Your task to perform on an android device: open app "Yahoo Mail" (install if not already installed) Image 0: 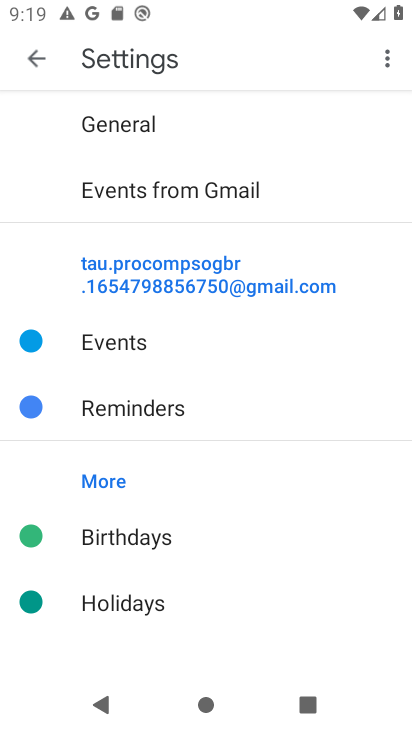
Step 0: press home button
Your task to perform on an android device: open app "Yahoo Mail" (install if not already installed) Image 1: 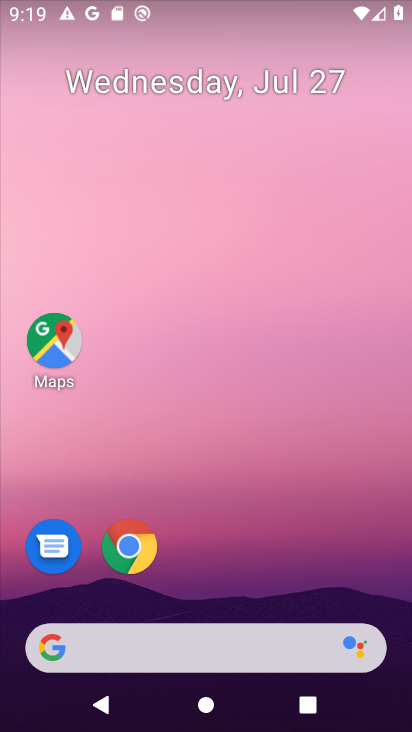
Step 1: drag from (194, 596) to (163, 208)
Your task to perform on an android device: open app "Yahoo Mail" (install if not already installed) Image 2: 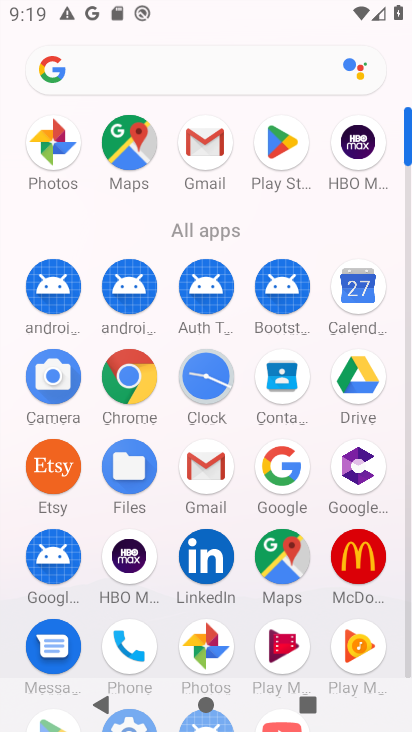
Step 2: click (282, 147)
Your task to perform on an android device: open app "Yahoo Mail" (install if not already installed) Image 3: 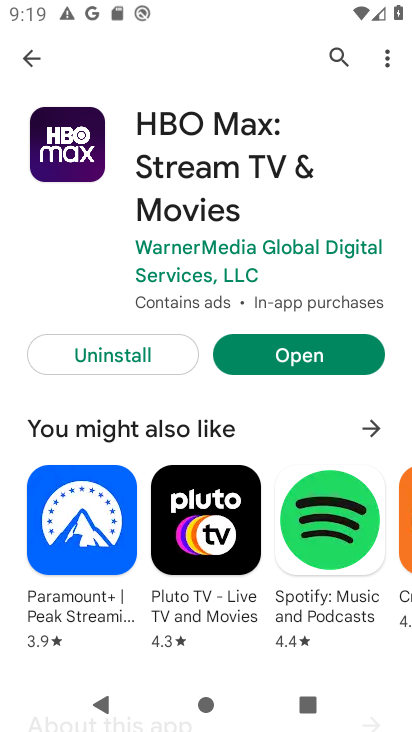
Step 3: click (337, 54)
Your task to perform on an android device: open app "Yahoo Mail" (install if not already installed) Image 4: 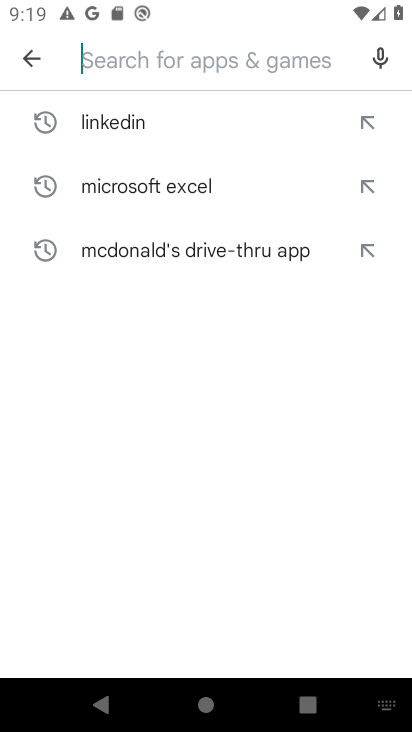
Step 4: type "Yahoo Mail"
Your task to perform on an android device: open app "Yahoo Mail" (install if not already installed) Image 5: 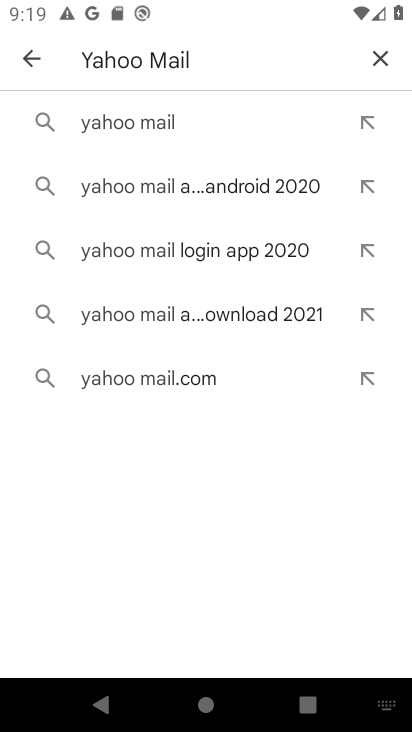
Step 5: click (172, 114)
Your task to perform on an android device: open app "Yahoo Mail" (install if not already installed) Image 6: 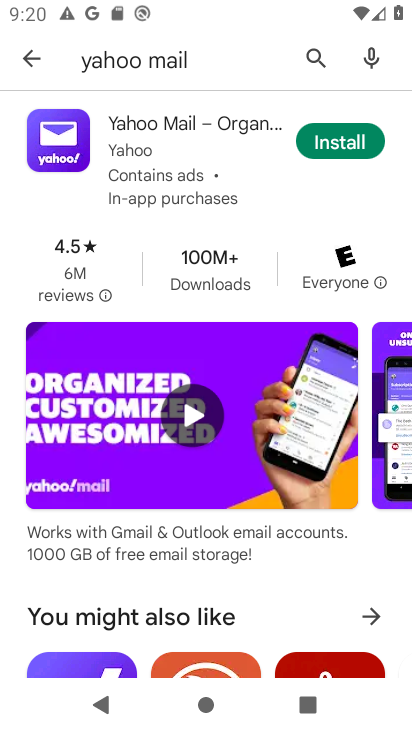
Step 6: drag from (65, 595) to (191, 128)
Your task to perform on an android device: open app "Yahoo Mail" (install if not already installed) Image 7: 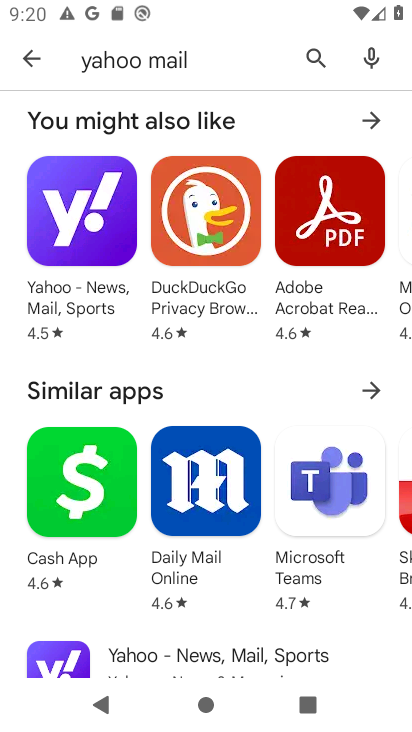
Step 7: drag from (145, 638) to (198, 588)
Your task to perform on an android device: open app "Yahoo Mail" (install if not already installed) Image 8: 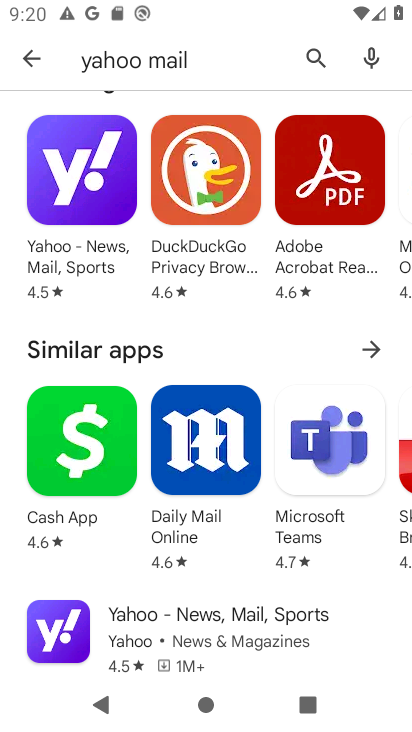
Step 8: drag from (306, 233) to (324, 687)
Your task to perform on an android device: open app "Yahoo Mail" (install if not already installed) Image 9: 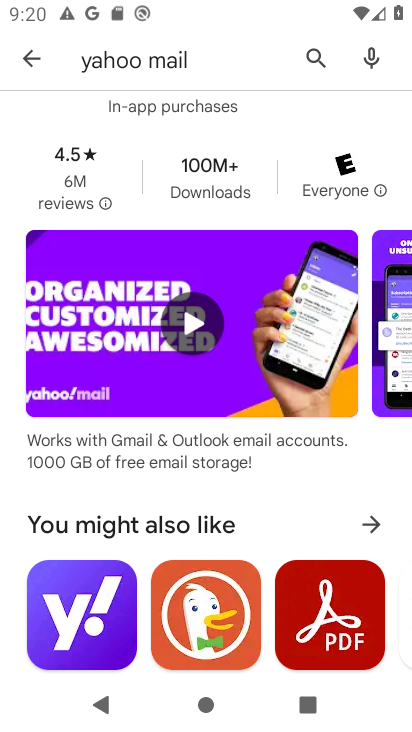
Step 9: drag from (181, 386) to (218, 626)
Your task to perform on an android device: open app "Yahoo Mail" (install if not already installed) Image 10: 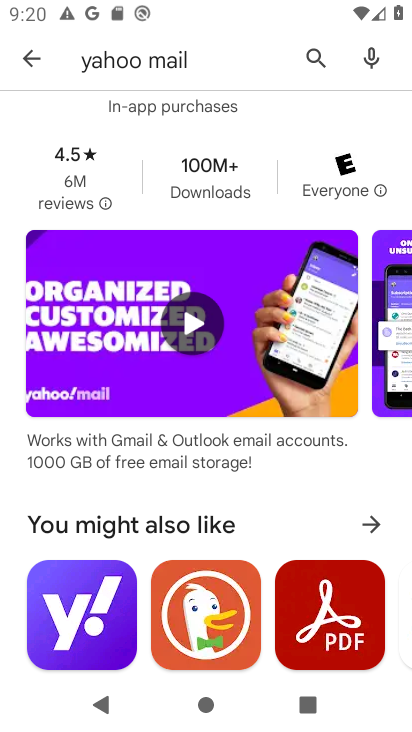
Step 10: drag from (285, 136) to (312, 463)
Your task to perform on an android device: open app "Yahoo Mail" (install if not already installed) Image 11: 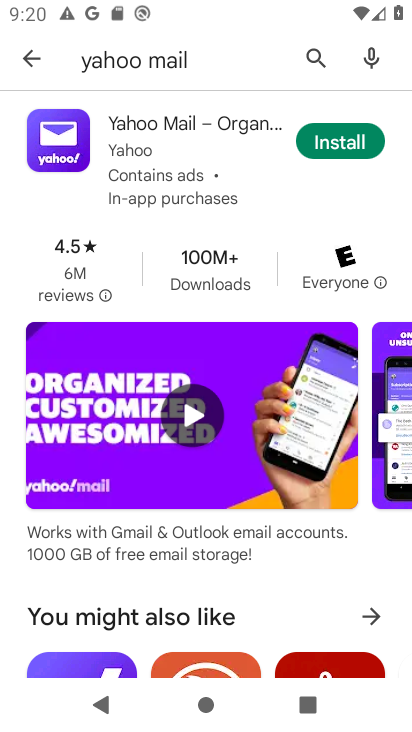
Step 11: click (352, 130)
Your task to perform on an android device: open app "Yahoo Mail" (install if not already installed) Image 12: 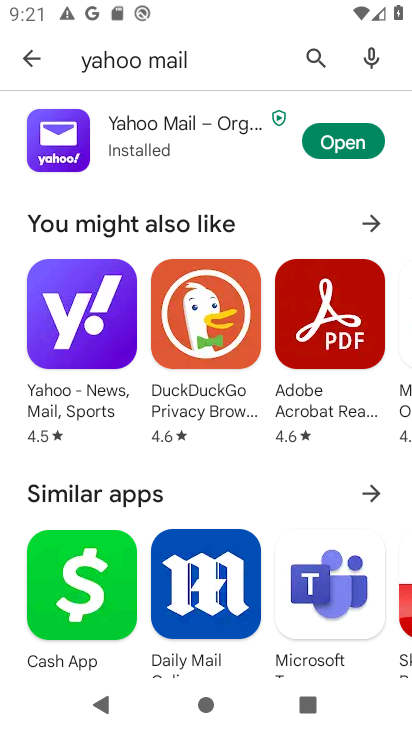
Step 12: click (352, 130)
Your task to perform on an android device: open app "Yahoo Mail" (install if not already installed) Image 13: 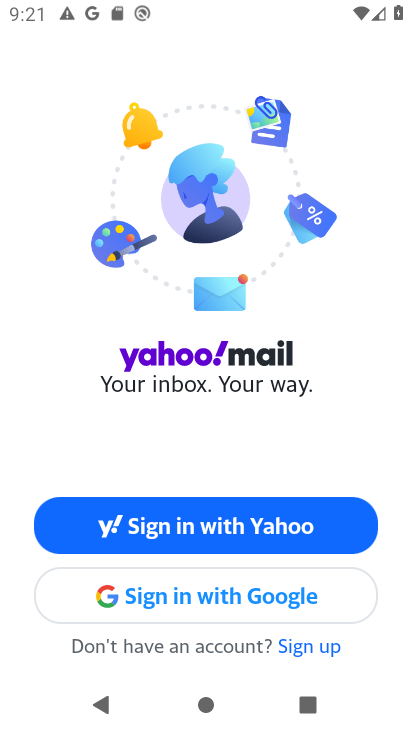
Step 13: task complete